Your task to perform on an android device: turn vacation reply on in the gmail app Image 0: 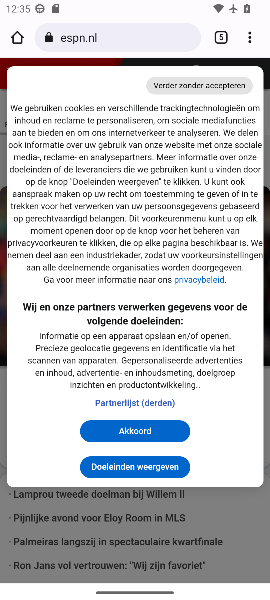
Step 0: press back button
Your task to perform on an android device: turn vacation reply on in the gmail app Image 1: 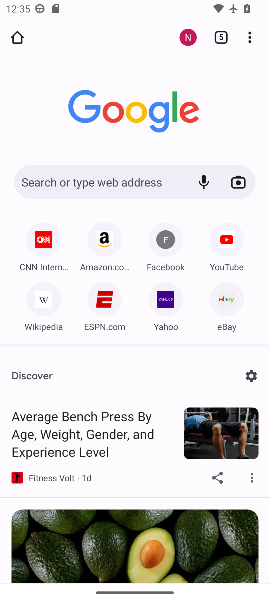
Step 1: press home button
Your task to perform on an android device: turn vacation reply on in the gmail app Image 2: 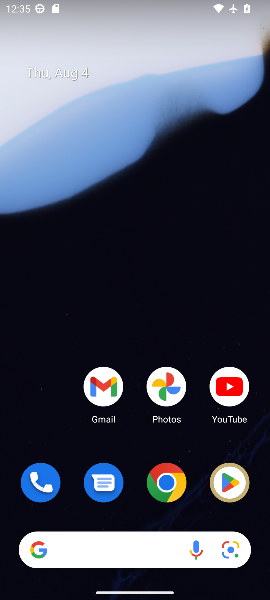
Step 2: click (113, 393)
Your task to perform on an android device: turn vacation reply on in the gmail app Image 3: 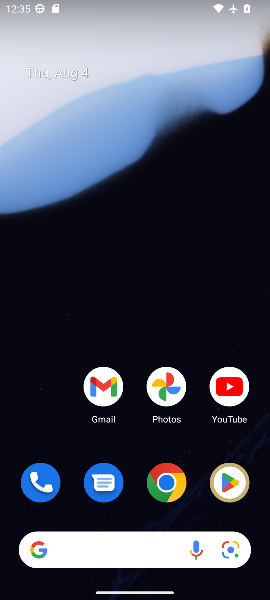
Step 3: click (109, 388)
Your task to perform on an android device: turn vacation reply on in the gmail app Image 4: 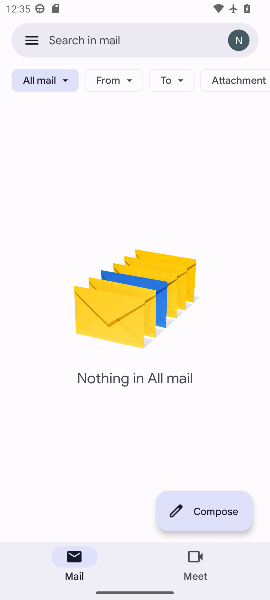
Step 4: click (37, 42)
Your task to perform on an android device: turn vacation reply on in the gmail app Image 5: 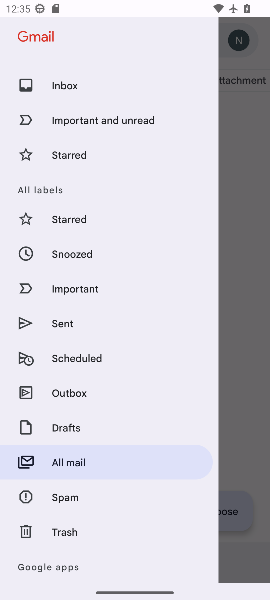
Step 5: drag from (97, 512) to (82, 147)
Your task to perform on an android device: turn vacation reply on in the gmail app Image 6: 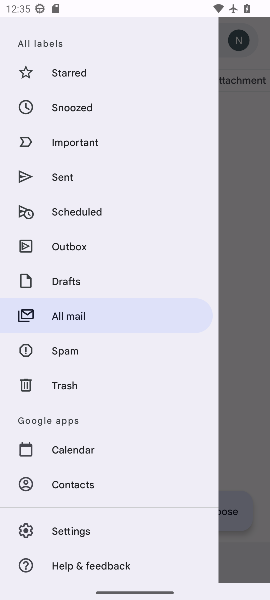
Step 6: click (72, 527)
Your task to perform on an android device: turn vacation reply on in the gmail app Image 7: 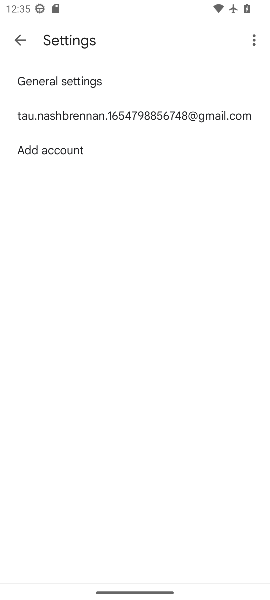
Step 7: click (144, 112)
Your task to perform on an android device: turn vacation reply on in the gmail app Image 8: 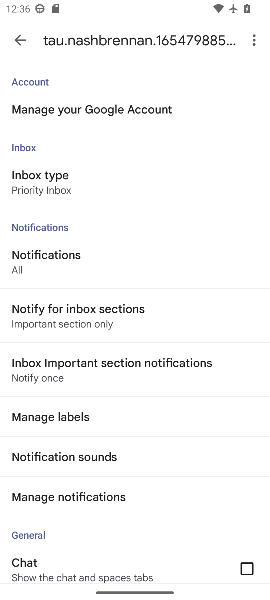
Step 8: drag from (129, 514) to (138, 266)
Your task to perform on an android device: turn vacation reply on in the gmail app Image 9: 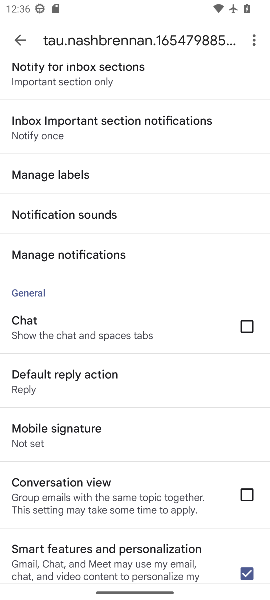
Step 9: drag from (111, 518) to (119, 224)
Your task to perform on an android device: turn vacation reply on in the gmail app Image 10: 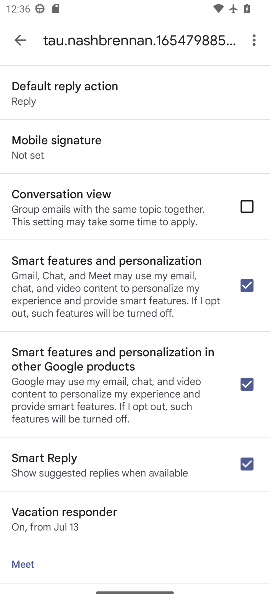
Step 10: click (137, 514)
Your task to perform on an android device: turn vacation reply on in the gmail app Image 11: 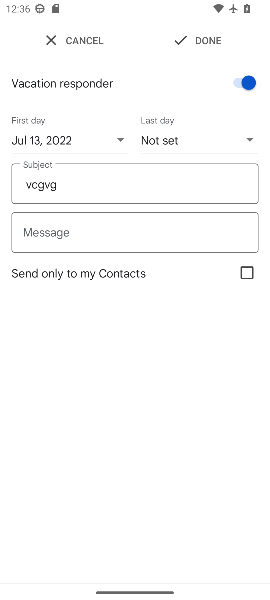
Step 11: task complete